Your task to perform on an android device: Search for pizza restaurants on Maps Image 0: 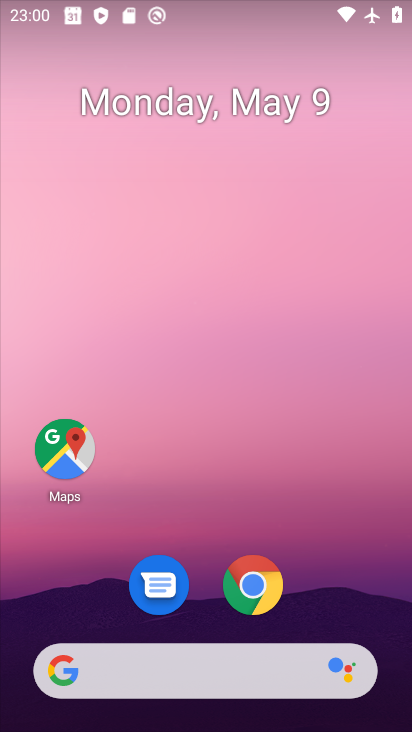
Step 0: click (69, 453)
Your task to perform on an android device: Search for pizza restaurants on Maps Image 1: 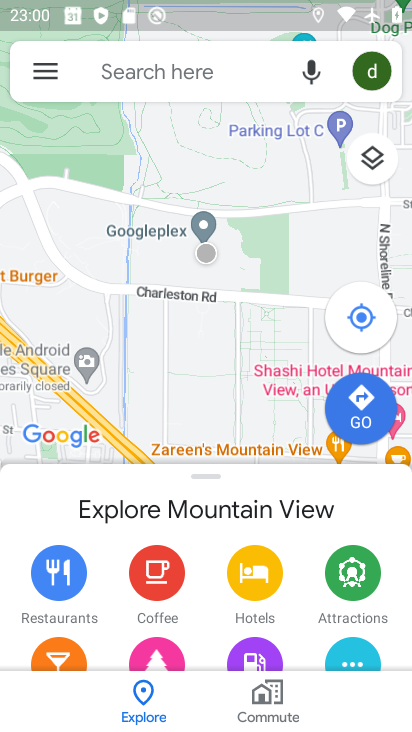
Step 1: click (169, 71)
Your task to perform on an android device: Search for pizza restaurants on Maps Image 2: 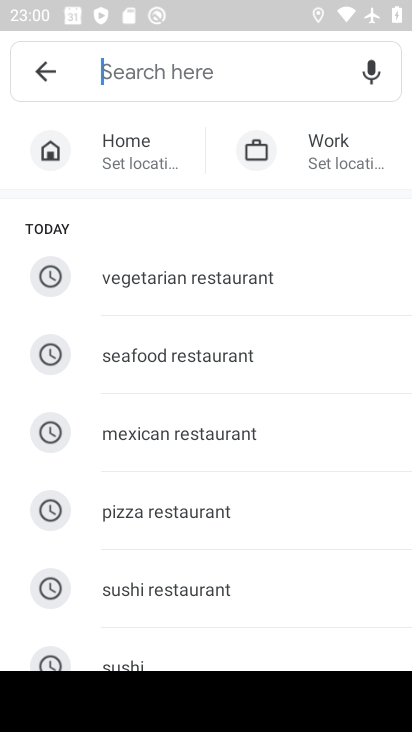
Step 2: click (181, 508)
Your task to perform on an android device: Search for pizza restaurants on Maps Image 3: 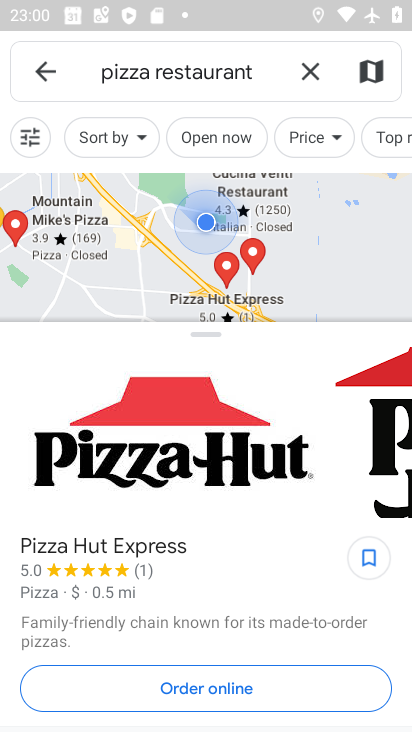
Step 3: task complete